Your task to perform on an android device: Do I have any events this weekend? Image 0: 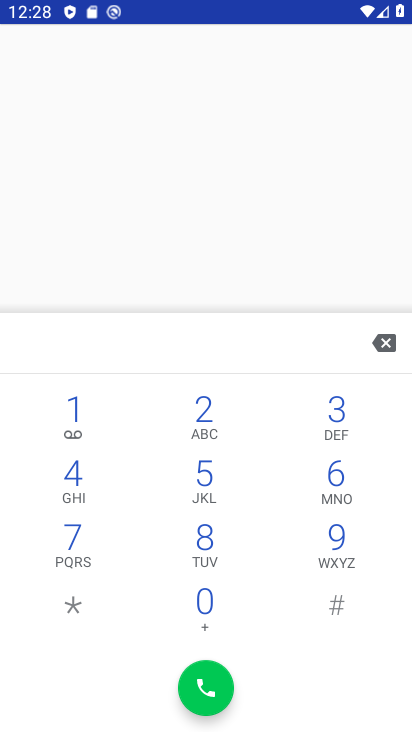
Step 0: press home button
Your task to perform on an android device: Do I have any events this weekend? Image 1: 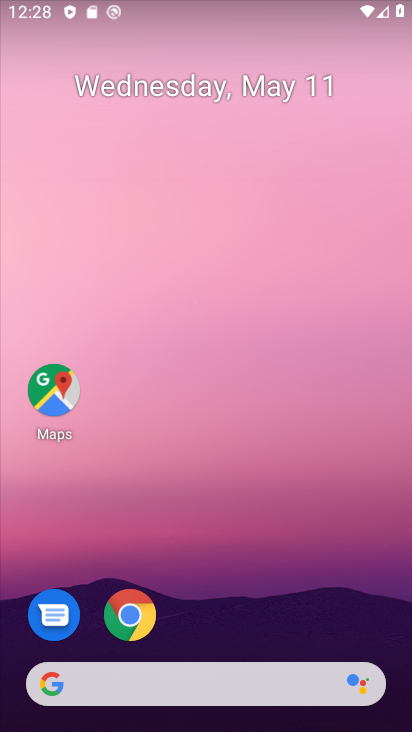
Step 1: click (178, 96)
Your task to perform on an android device: Do I have any events this weekend? Image 2: 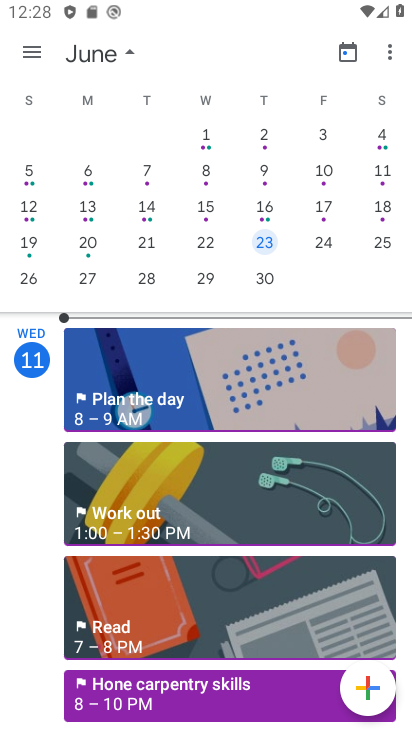
Step 2: click (383, 245)
Your task to perform on an android device: Do I have any events this weekend? Image 3: 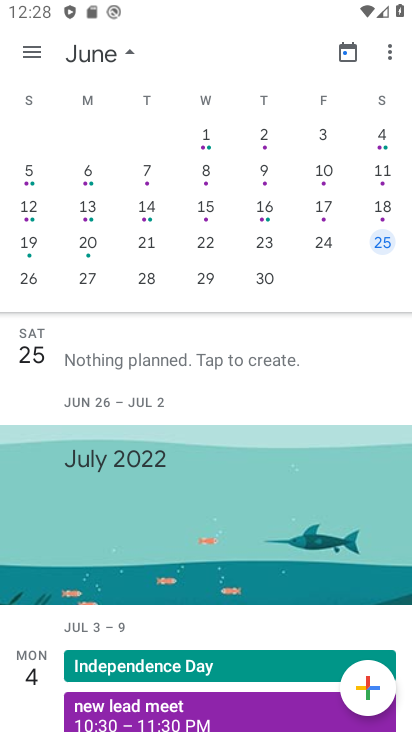
Step 3: task complete